Your task to perform on an android device: uninstall "Adobe Express: Graphic Design" Image 0: 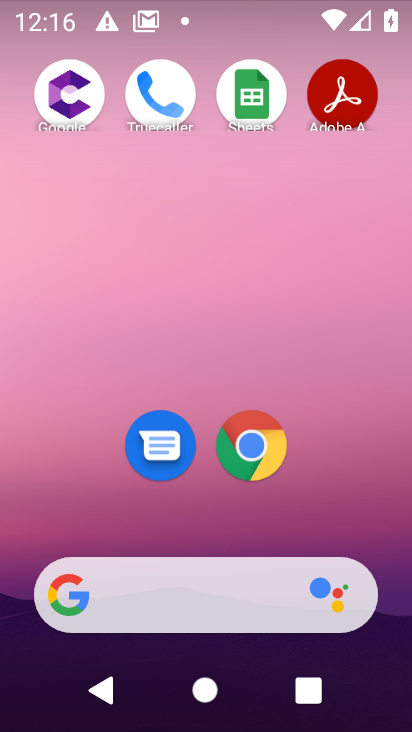
Step 0: drag from (186, 516) to (154, 0)
Your task to perform on an android device: uninstall "Adobe Express: Graphic Design" Image 1: 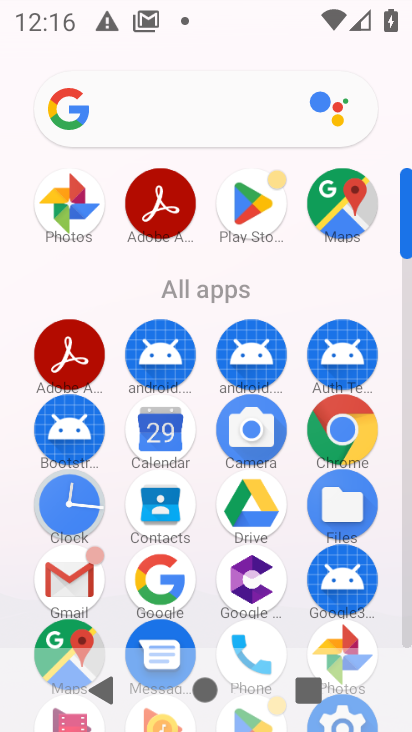
Step 1: click (240, 202)
Your task to perform on an android device: uninstall "Adobe Express: Graphic Design" Image 2: 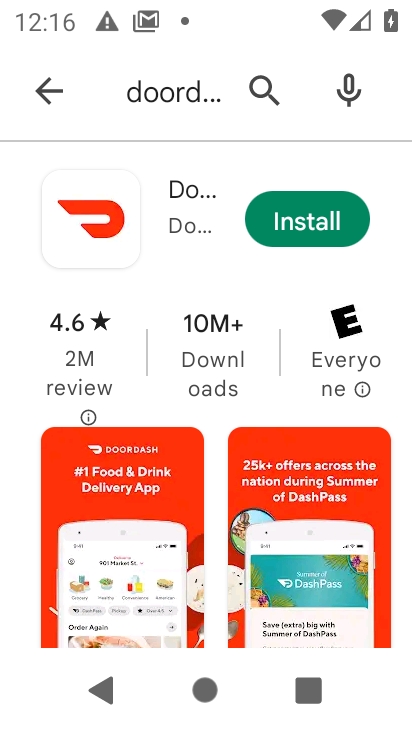
Step 2: click (167, 97)
Your task to perform on an android device: uninstall "Adobe Express: Graphic Design" Image 3: 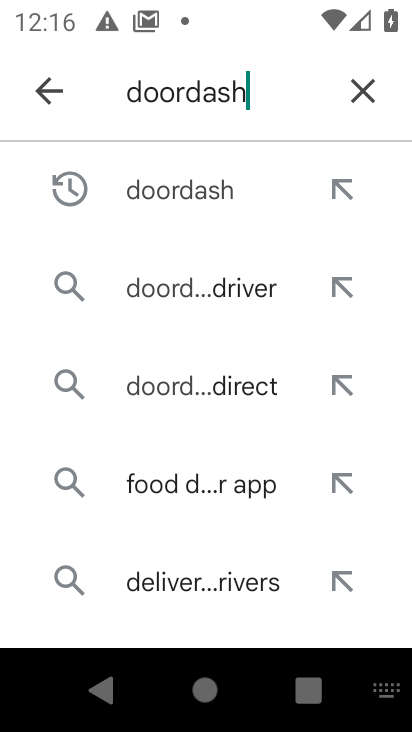
Step 3: click (357, 94)
Your task to perform on an android device: uninstall "Adobe Express: Graphic Design" Image 4: 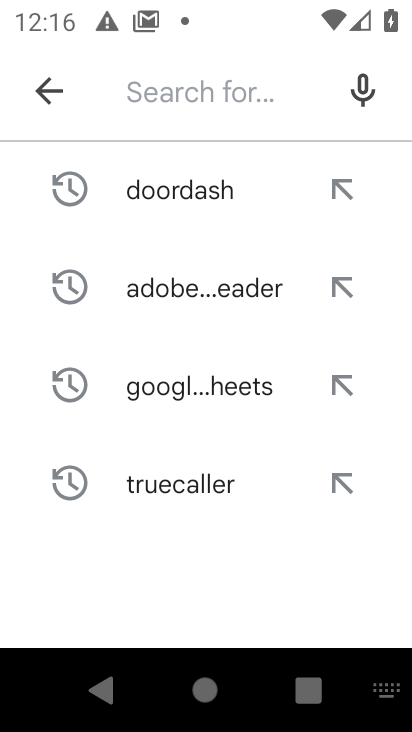
Step 4: type "Adobe Express"
Your task to perform on an android device: uninstall "Adobe Express: Graphic Design" Image 5: 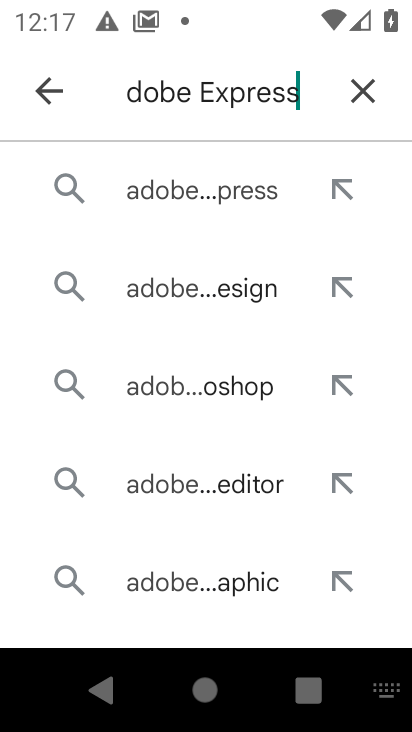
Step 5: click (184, 203)
Your task to perform on an android device: uninstall "Adobe Express: Graphic Design" Image 6: 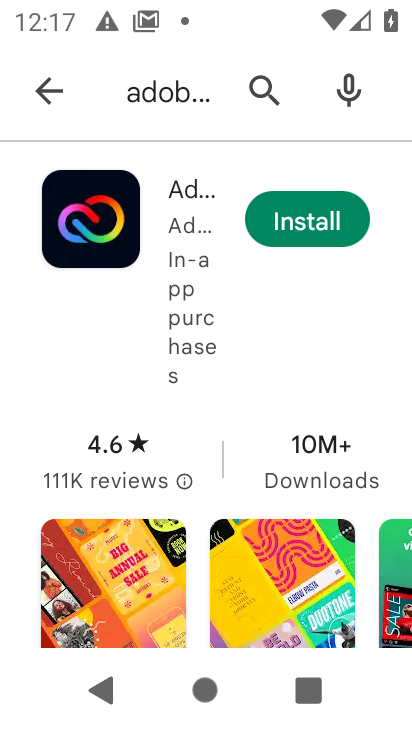
Step 6: task complete